Your task to perform on an android device: turn off location history Image 0: 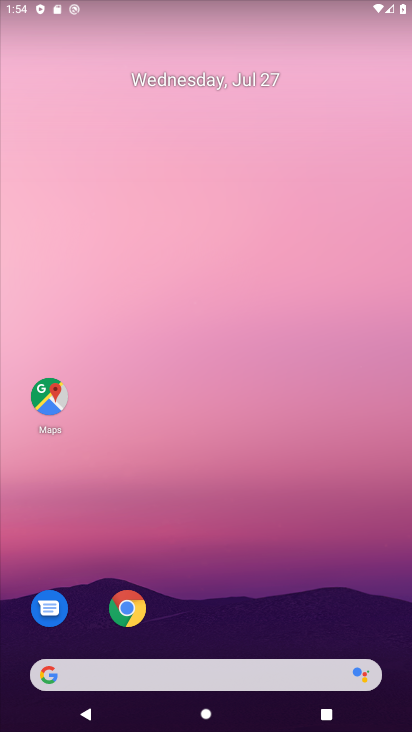
Step 0: drag from (236, 645) to (191, 312)
Your task to perform on an android device: turn off location history Image 1: 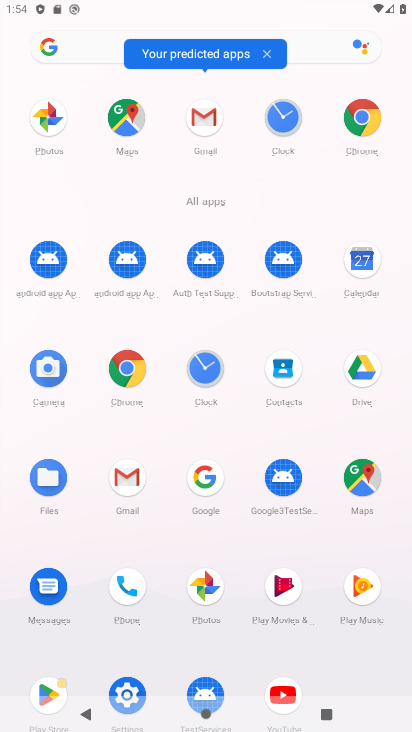
Step 1: click (135, 689)
Your task to perform on an android device: turn off location history Image 2: 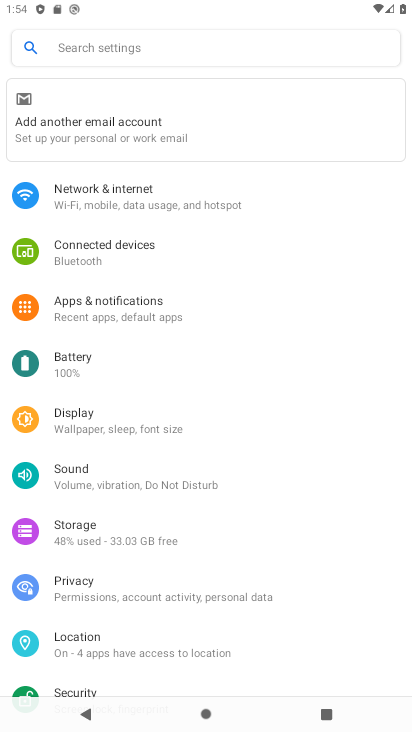
Step 2: click (132, 639)
Your task to perform on an android device: turn off location history Image 3: 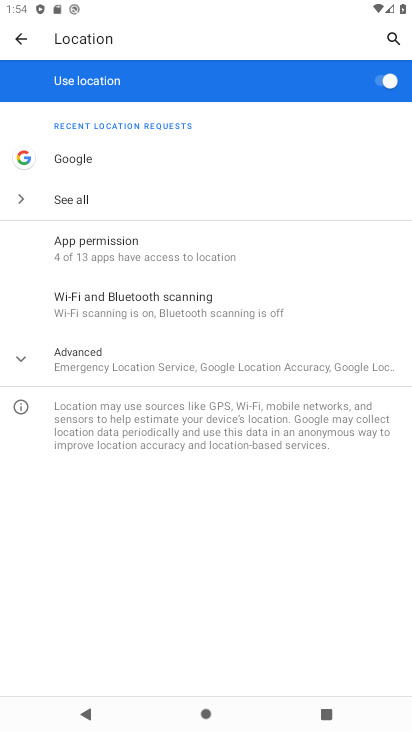
Step 3: click (17, 359)
Your task to perform on an android device: turn off location history Image 4: 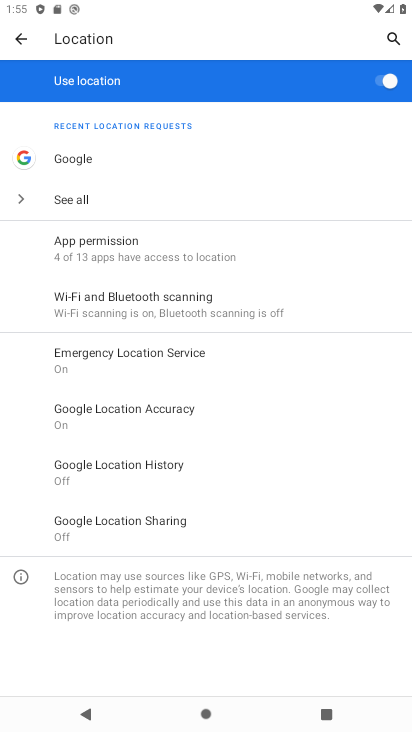
Step 4: click (122, 469)
Your task to perform on an android device: turn off location history Image 5: 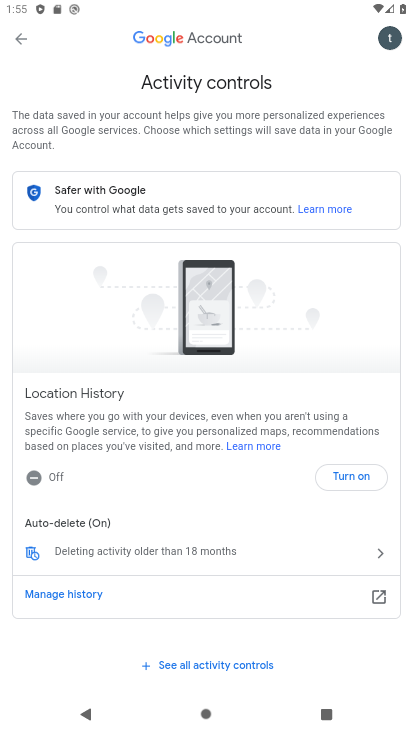
Step 5: task complete